Your task to perform on an android device: open chrome privacy settings Image 0: 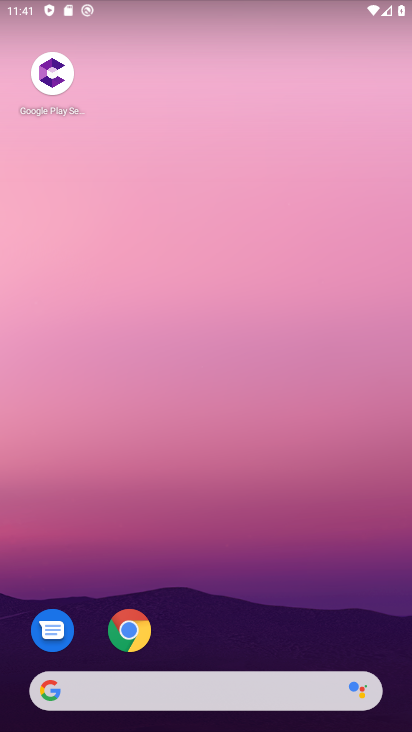
Step 0: click (139, 634)
Your task to perform on an android device: open chrome privacy settings Image 1: 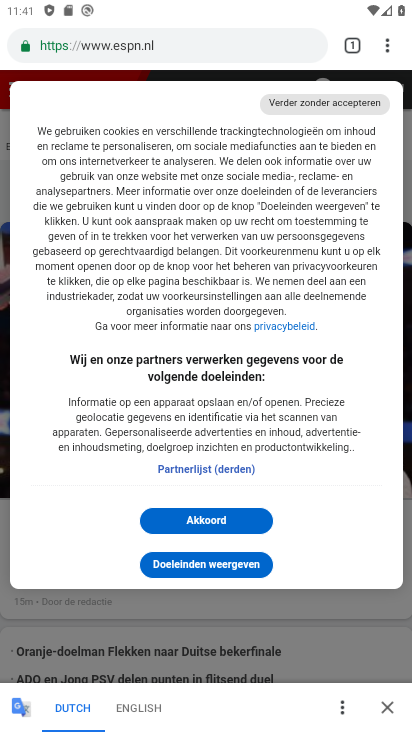
Step 1: drag from (386, 44) to (232, 553)
Your task to perform on an android device: open chrome privacy settings Image 2: 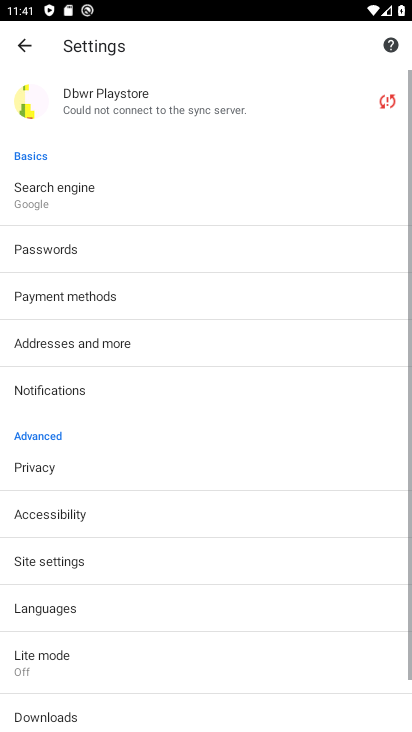
Step 2: click (27, 465)
Your task to perform on an android device: open chrome privacy settings Image 3: 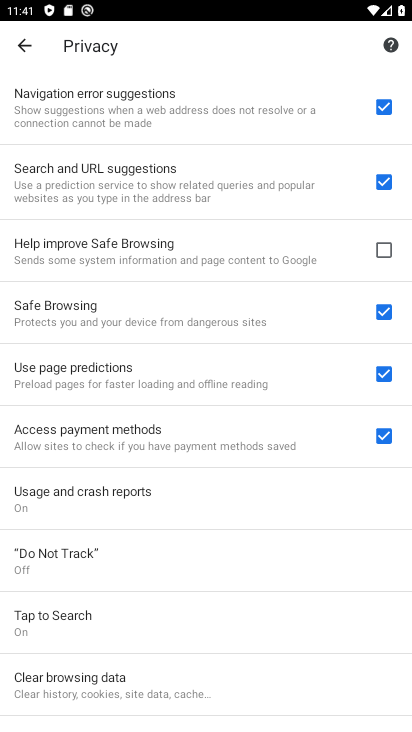
Step 3: task complete